Your task to perform on an android device: uninstall "Move to iOS" Image 0: 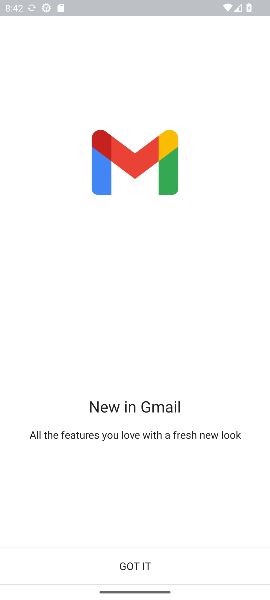
Step 0: press home button
Your task to perform on an android device: uninstall "Move to iOS" Image 1: 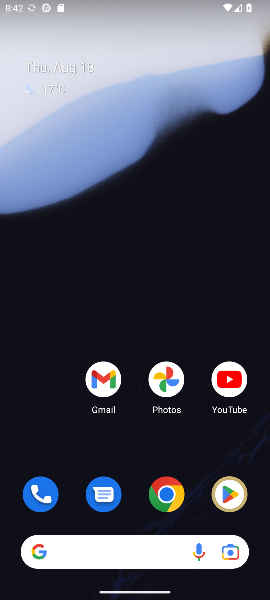
Step 1: click (232, 496)
Your task to perform on an android device: uninstall "Move to iOS" Image 2: 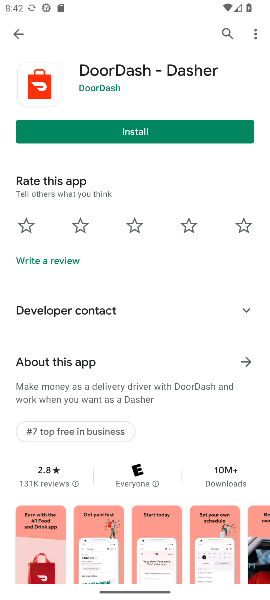
Step 2: click (222, 33)
Your task to perform on an android device: uninstall "Move to iOS" Image 3: 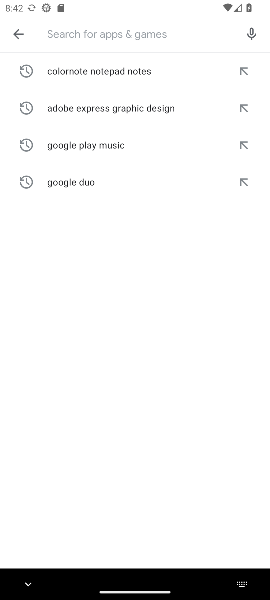
Step 3: type "Move to iOS"
Your task to perform on an android device: uninstall "Move to iOS" Image 4: 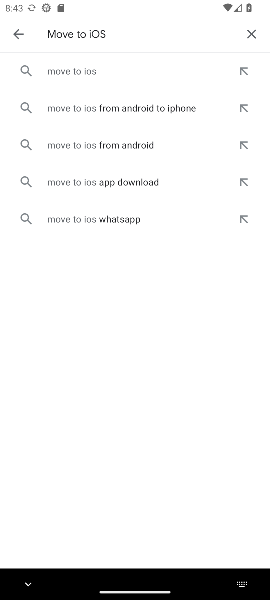
Step 4: click (71, 70)
Your task to perform on an android device: uninstall "Move to iOS" Image 5: 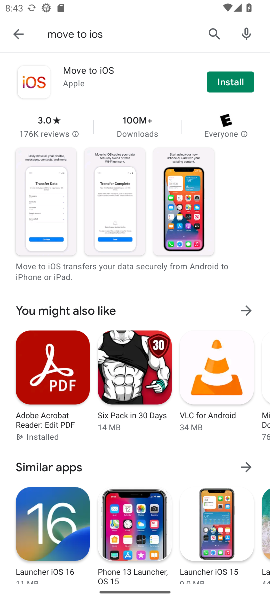
Step 5: task complete